Your task to perform on an android device: clear history in the chrome app Image 0: 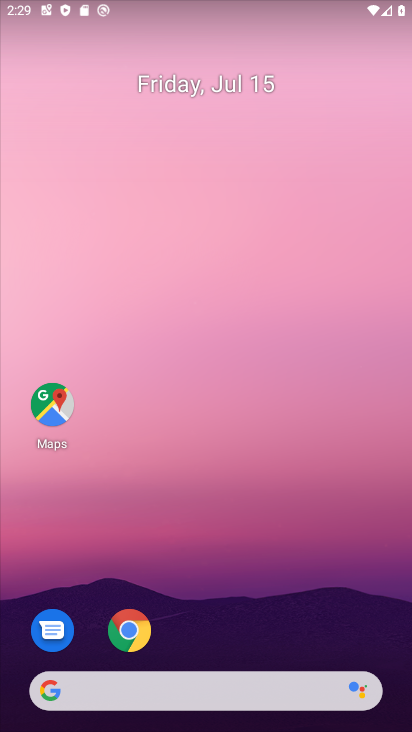
Step 0: click (125, 635)
Your task to perform on an android device: clear history in the chrome app Image 1: 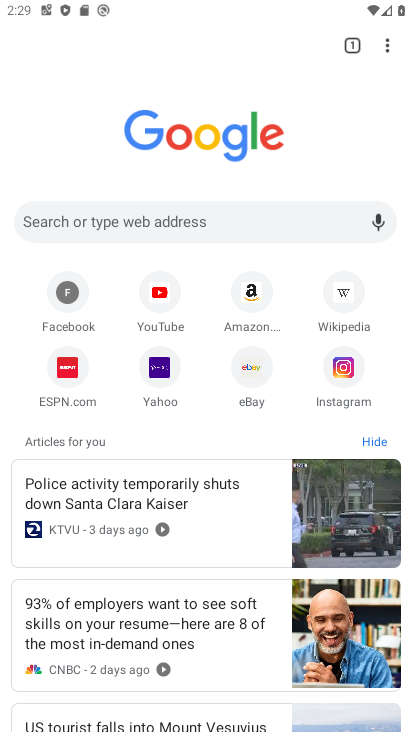
Step 1: click (382, 36)
Your task to perform on an android device: clear history in the chrome app Image 2: 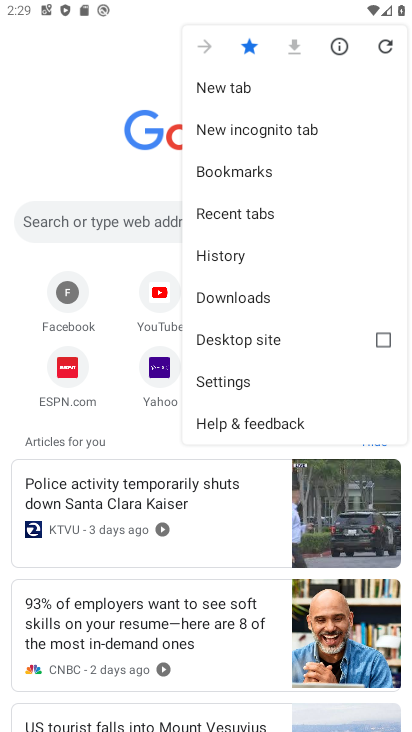
Step 2: click (239, 261)
Your task to perform on an android device: clear history in the chrome app Image 3: 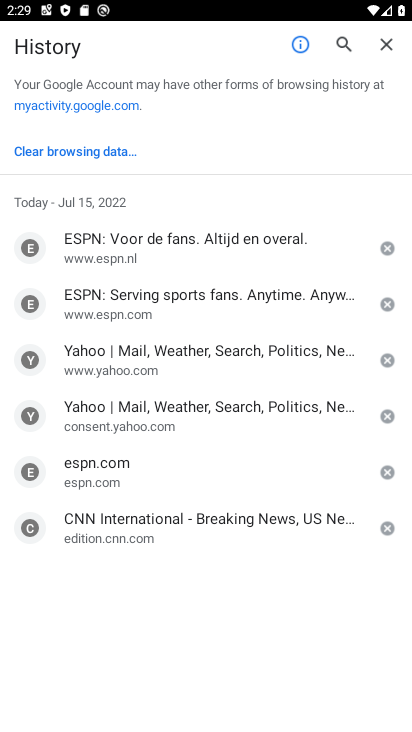
Step 3: click (66, 151)
Your task to perform on an android device: clear history in the chrome app Image 4: 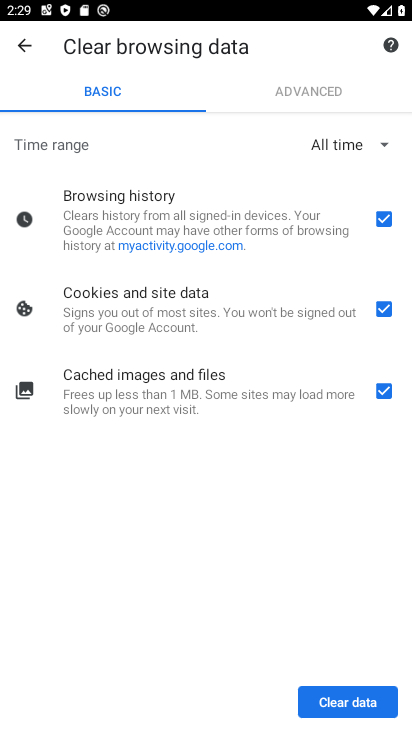
Step 4: click (347, 709)
Your task to perform on an android device: clear history in the chrome app Image 5: 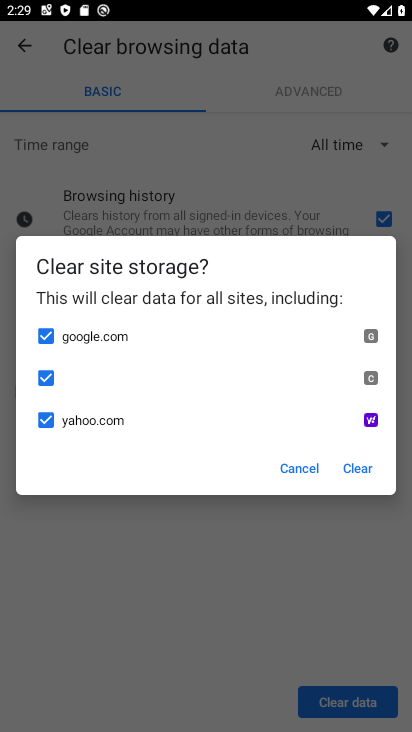
Step 5: click (358, 471)
Your task to perform on an android device: clear history in the chrome app Image 6: 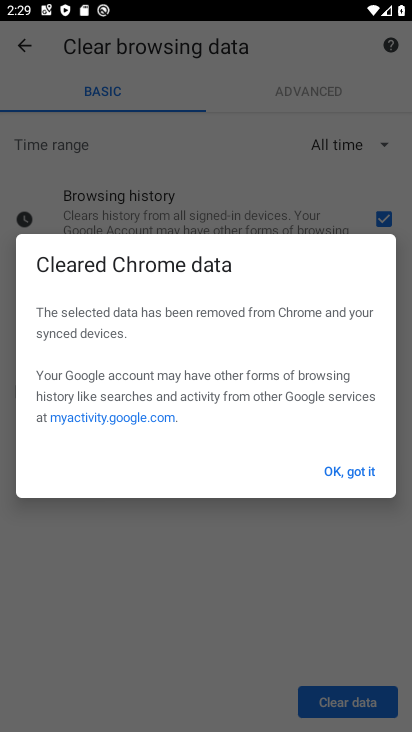
Step 6: click (357, 473)
Your task to perform on an android device: clear history in the chrome app Image 7: 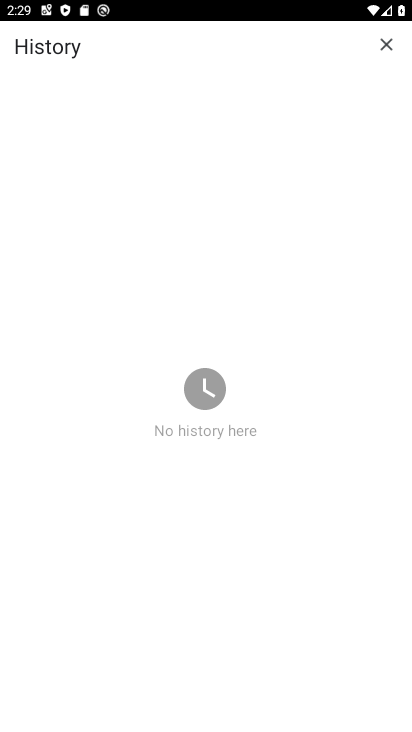
Step 7: task complete